Your task to perform on an android device: Search for vegetarian restaurants on Maps Image 0: 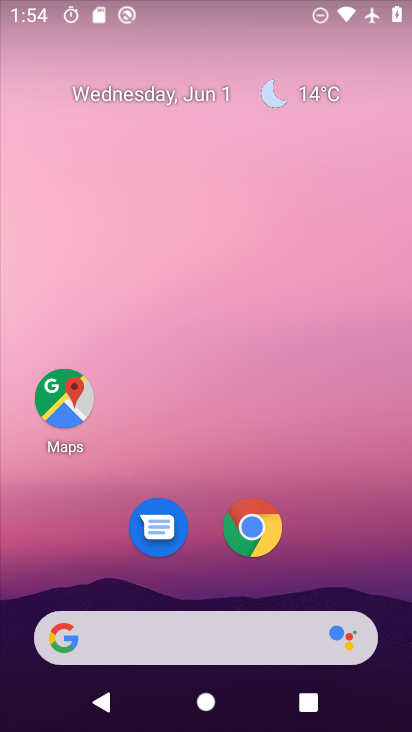
Step 0: click (80, 407)
Your task to perform on an android device: Search for vegetarian restaurants on Maps Image 1: 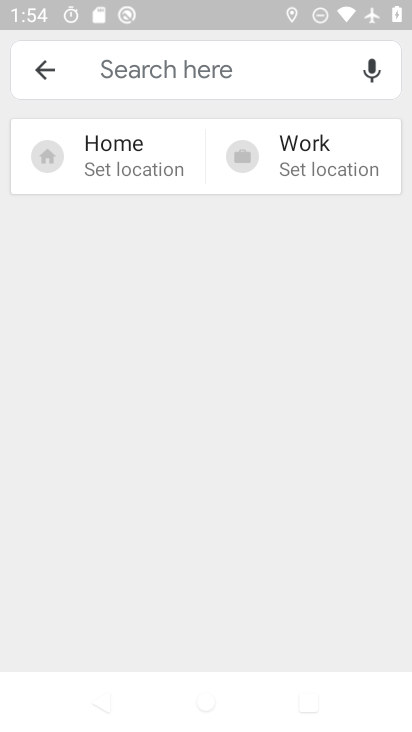
Step 1: click (244, 69)
Your task to perform on an android device: Search for vegetarian restaurants on Maps Image 2: 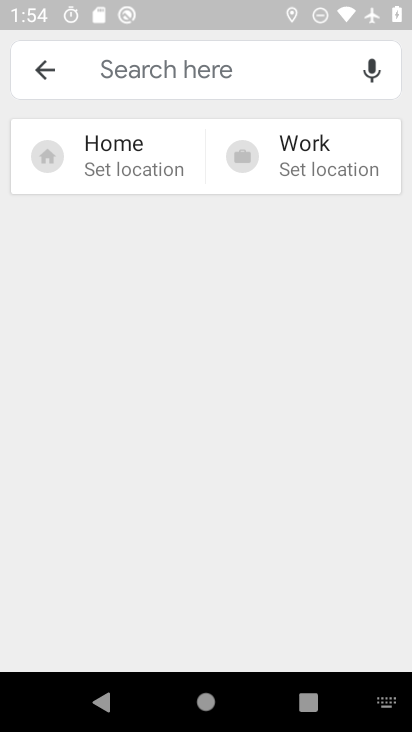
Step 2: type "vegetarian restaurants"
Your task to perform on an android device: Search for vegetarian restaurants on Maps Image 3: 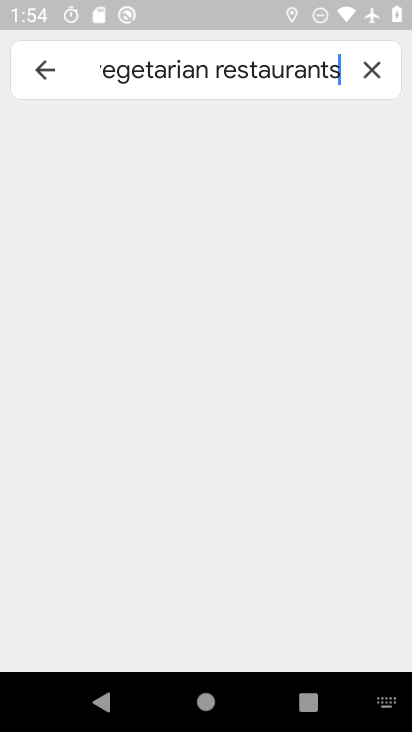
Step 3: task complete